Your task to perform on an android device: Search for vegetarian restaurants on Maps Image 0: 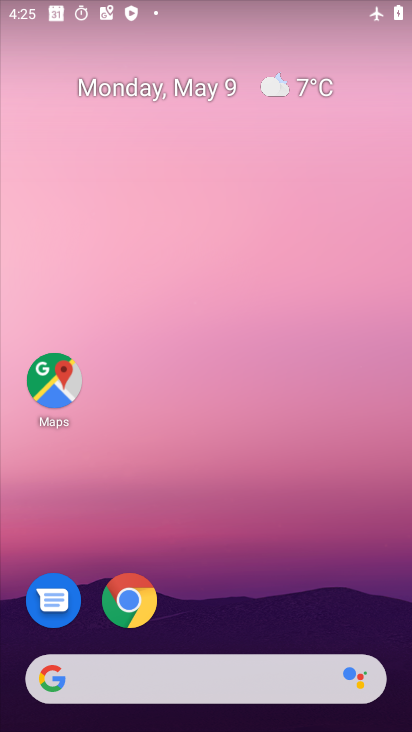
Step 0: click (39, 376)
Your task to perform on an android device: Search for vegetarian restaurants on Maps Image 1: 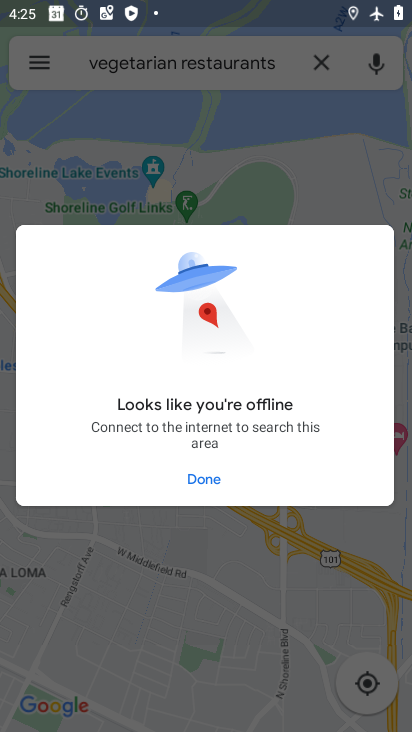
Step 1: task complete